Your task to perform on an android device: Go to Wikipedia Image 0: 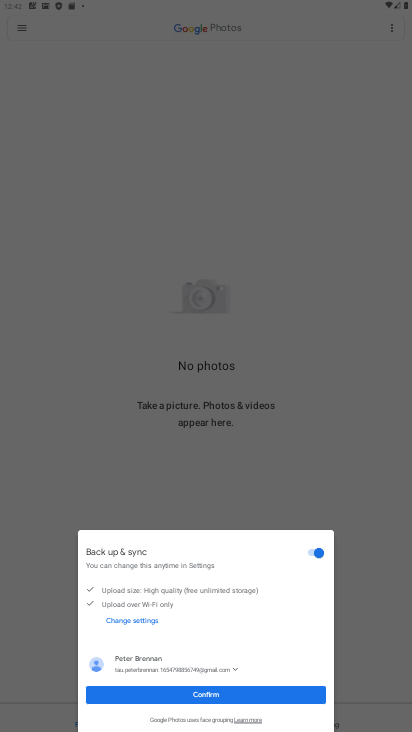
Step 0: press home button
Your task to perform on an android device: Go to Wikipedia Image 1: 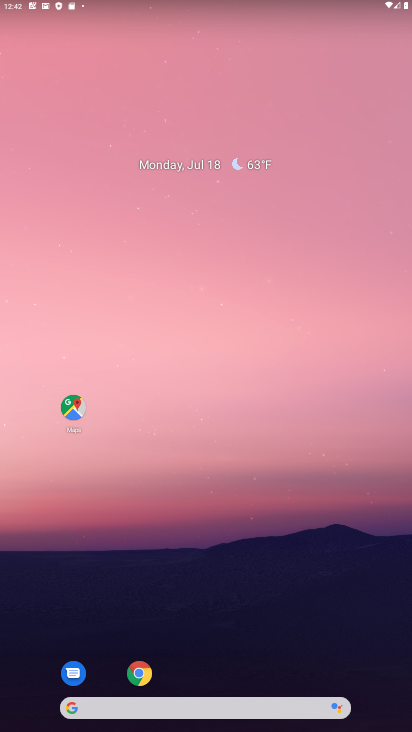
Step 1: drag from (248, 645) to (245, 330)
Your task to perform on an android device: Go to Wikipedia Image 2: 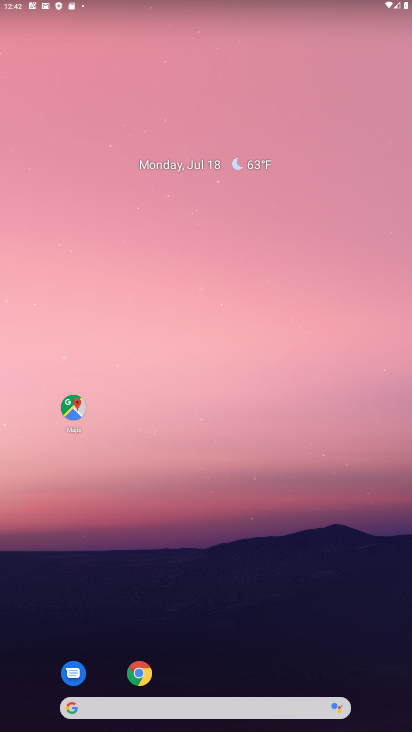
Step 2: drag from (245, 691) to (201, 207)
Your task to perform on an android device: Go to Wikipedia Image 3: 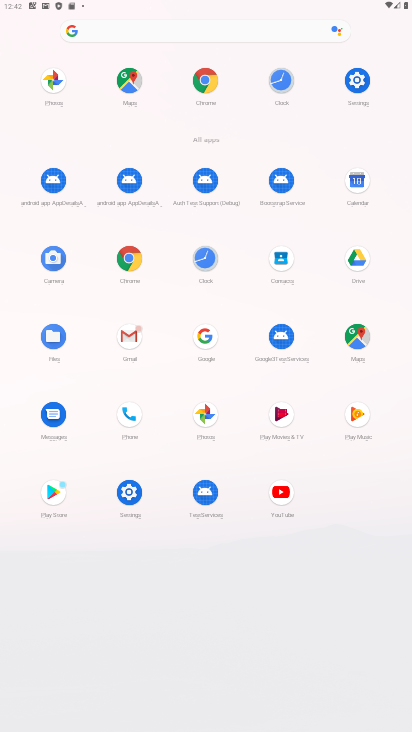
Step 3: click (121, 248)
Your task to perform on an android device: Go to Wikipedia Image 4: 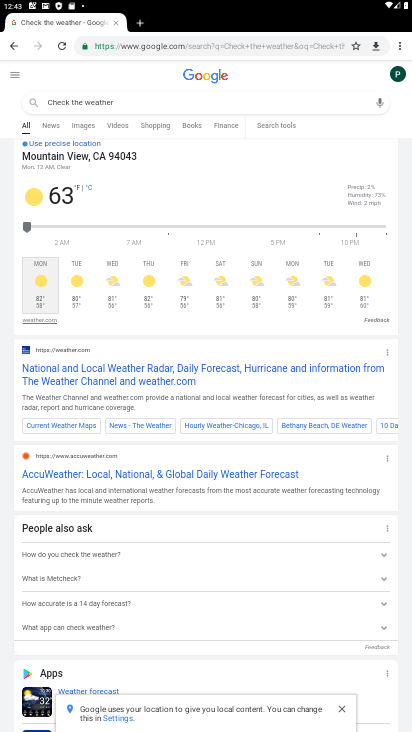
Step 4: click (400, 40)
Your task to perform on an android device: Go to Wikipedia Image 5: 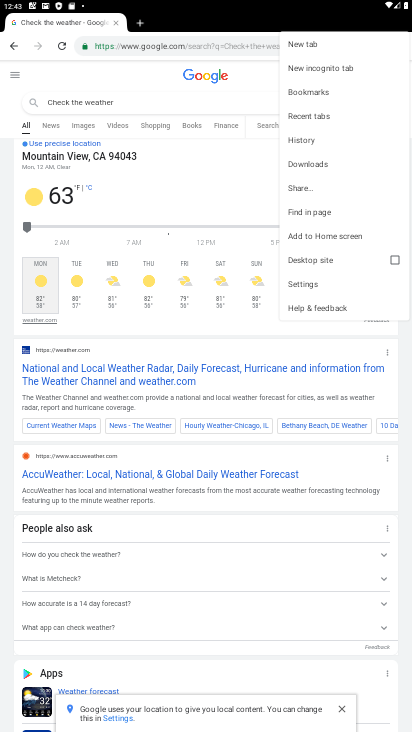
Step 5: click (301, 41)
Your task to perform on an android device: Go to Wikipedia Image 6: 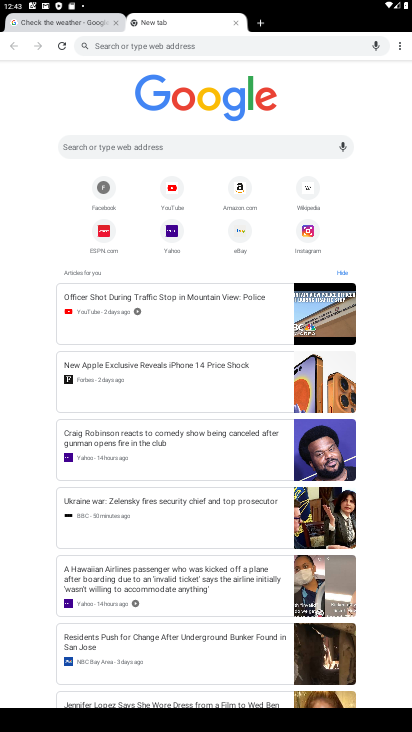
Step 6: click (315, 174)
Your task to perform on an android device: Go to Wikipedia Image 7: 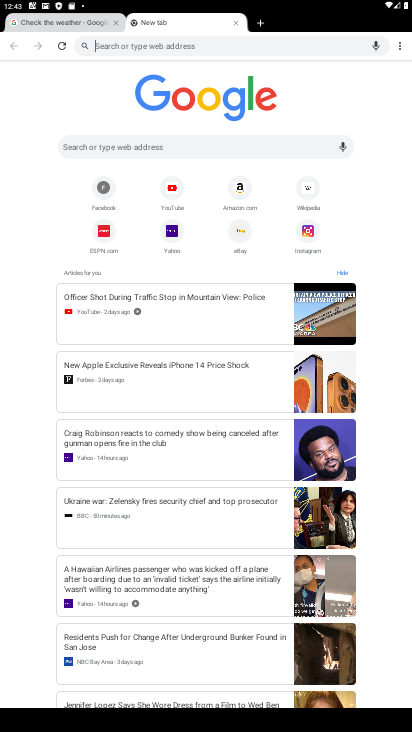
Step 7: click (311, 185)
Your task to perform on an android device: Go to Wikipedia Image 8: 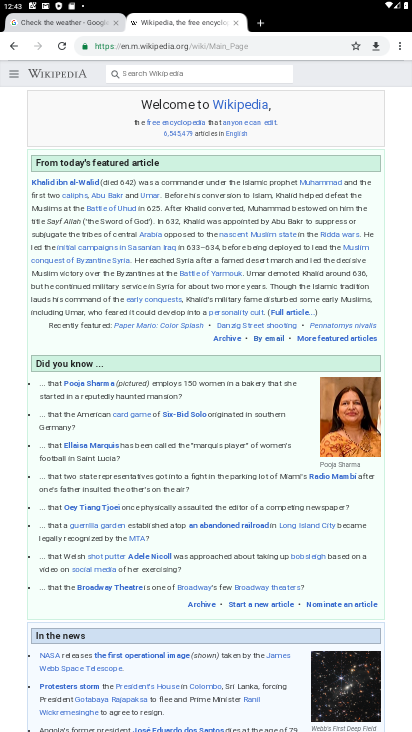
Step 8: task complete